Your task to perform on an android device: Do I have any events tomorrow? Image 0: 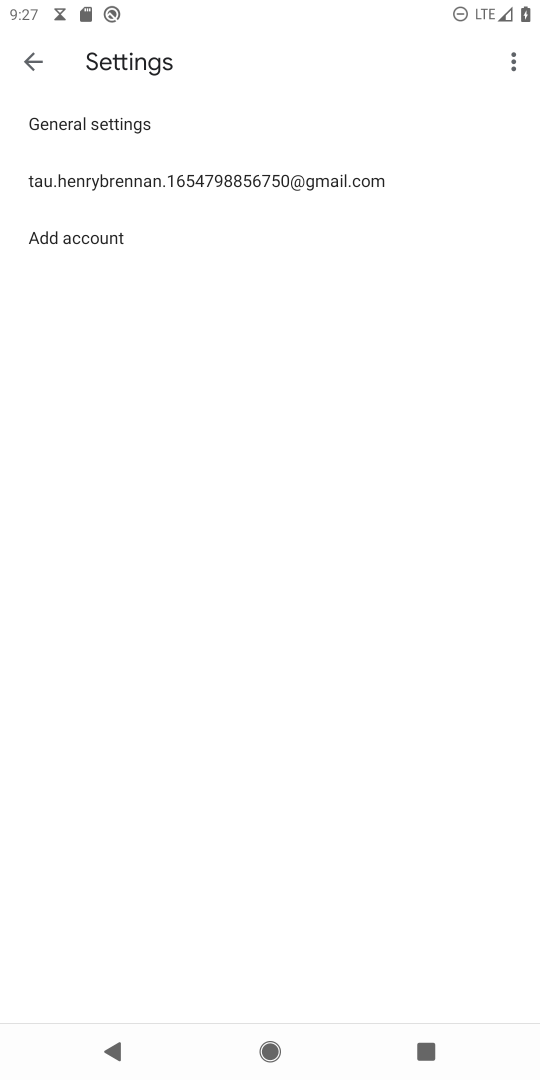
Step 0: press home button
Your task to perform on an android device: Do I have any events tomorrow? Image 1: 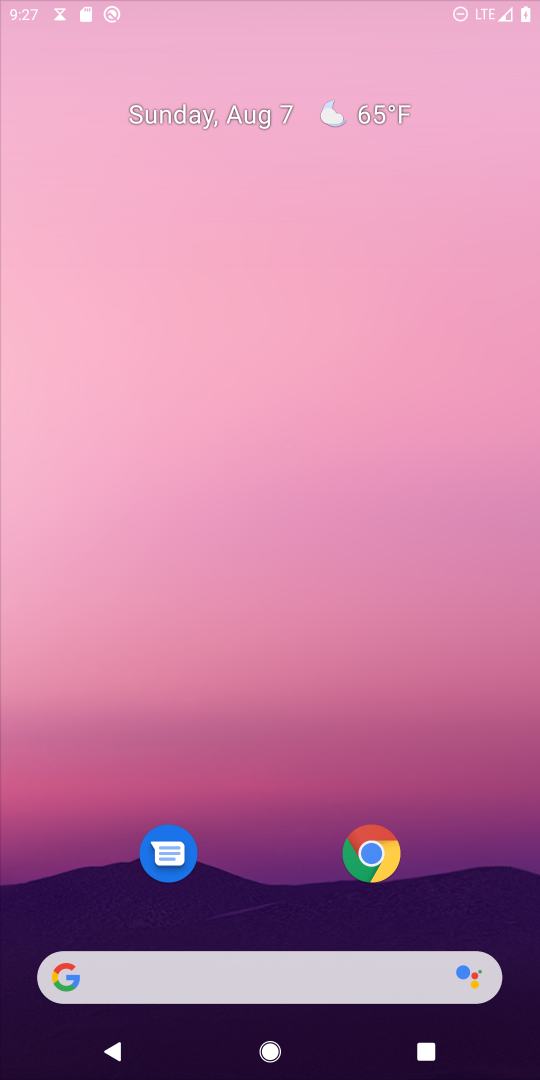
Step 1: drag from (237, 930) to (210, 219)
Your task to perform on an android device: Do I have any events tomorrow? Image 2: 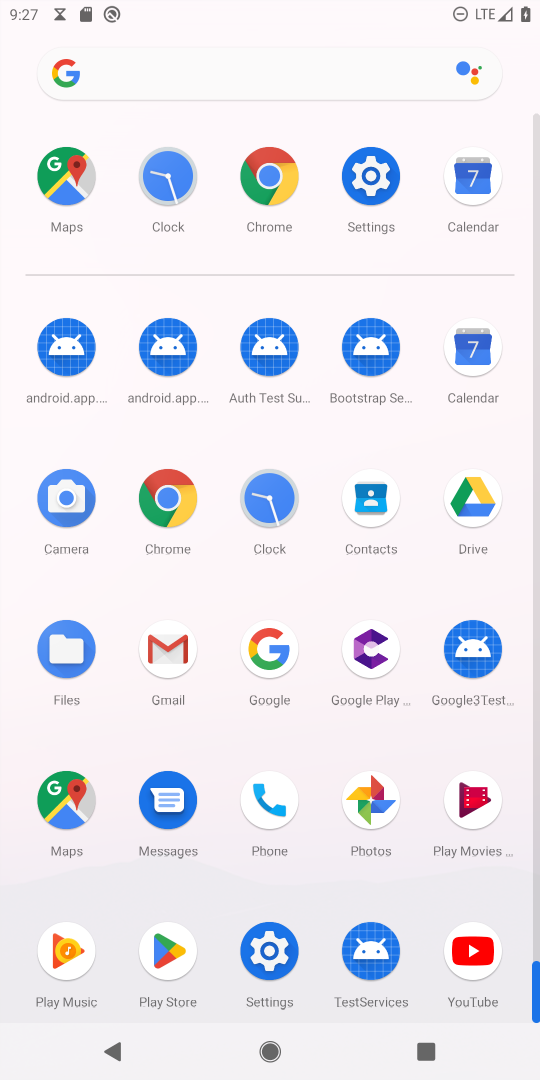
Step 2: click (175, 493)
Your task to perform on an android device: Do I have any events tomorrow? Image 3: 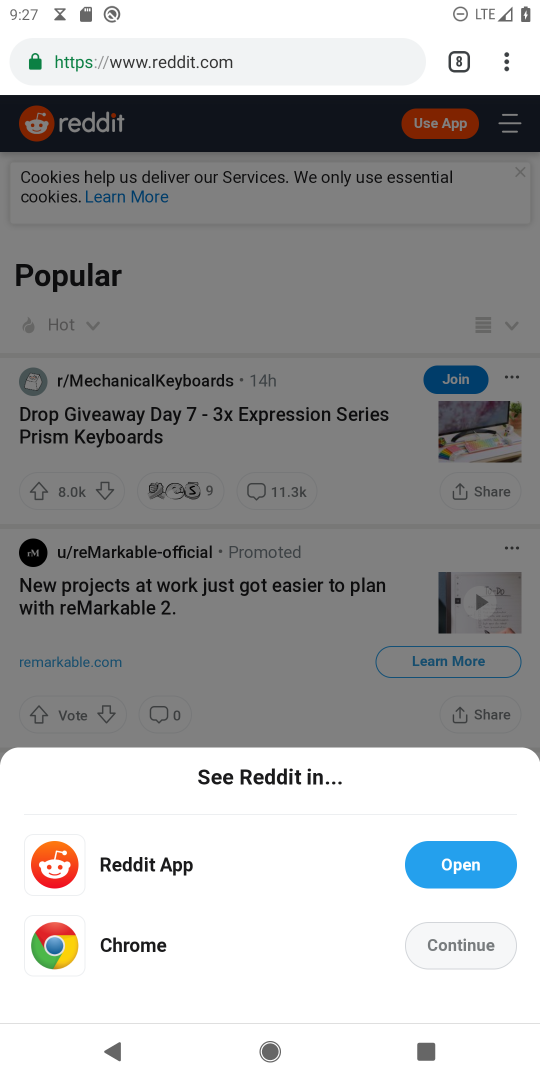
Step 3: click (508, 69)
Your task to perform on an android device: Do I have any events tomorrow? Image 4: 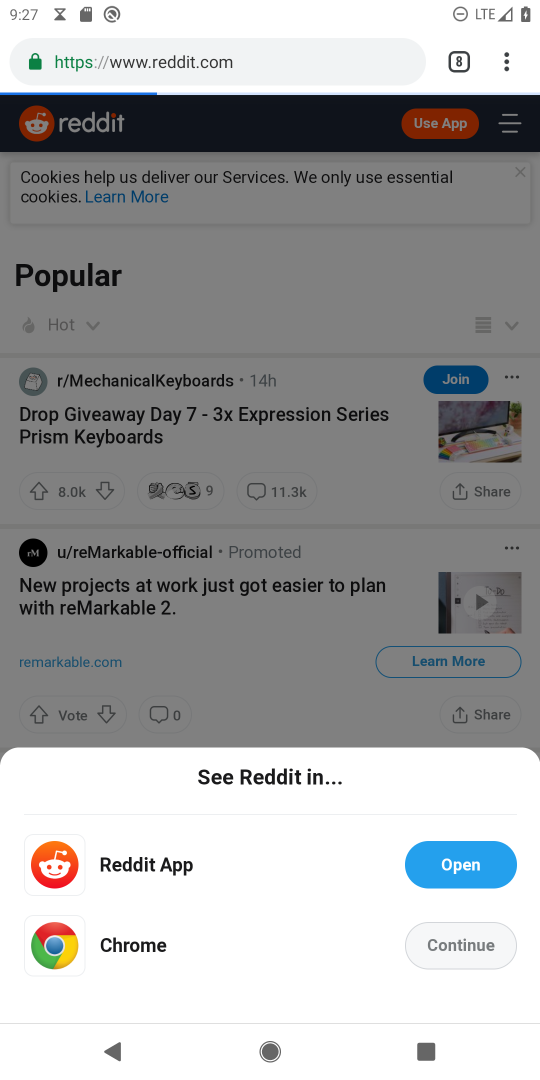
Step 4: click (508, 63)
Your task to perform on an android device: Do I have any events tomorrow? Image 5: 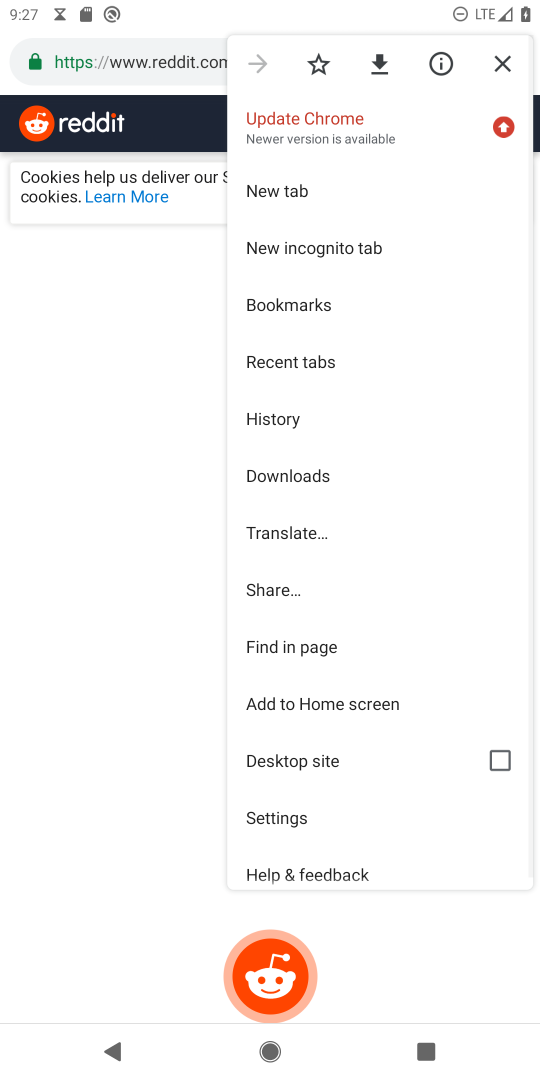
Step 5: click (303, 192)
Your task to perform on an android device: Do I have any events tomorrow? Image 6: 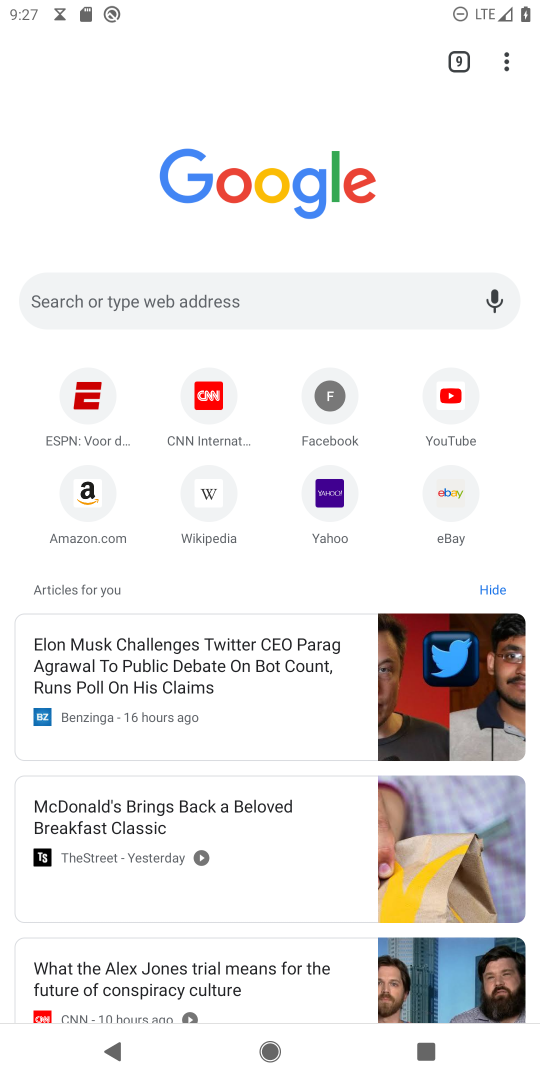
Step 6: click (185, 288)
Your task to perform on an android device: Do I have any events tomorrow? Image 7: 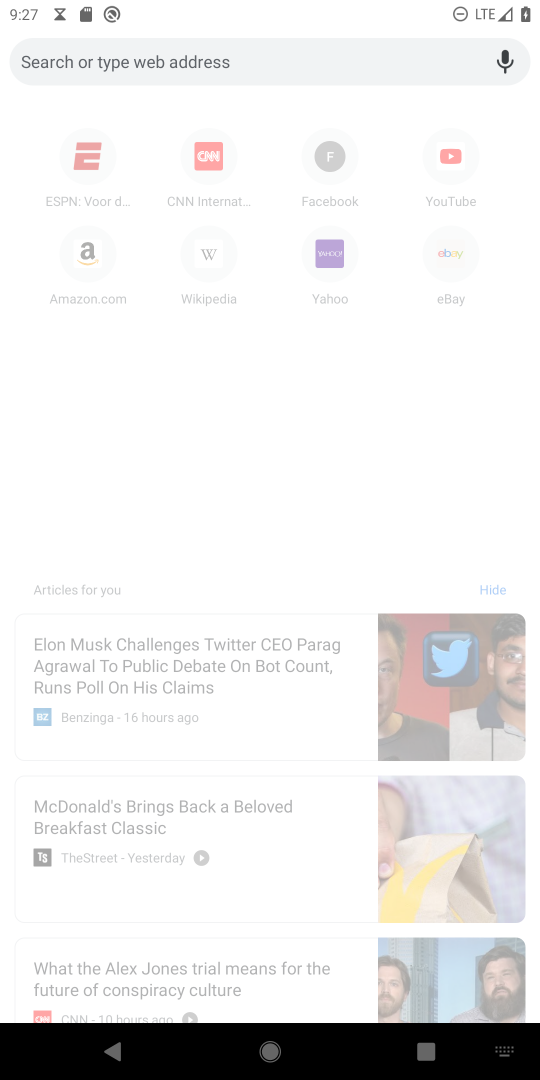
Step 7: type "Do I have any events tomorrow? "
Your task to perform on an android device: Do I have any events tomorrow? Image 8: 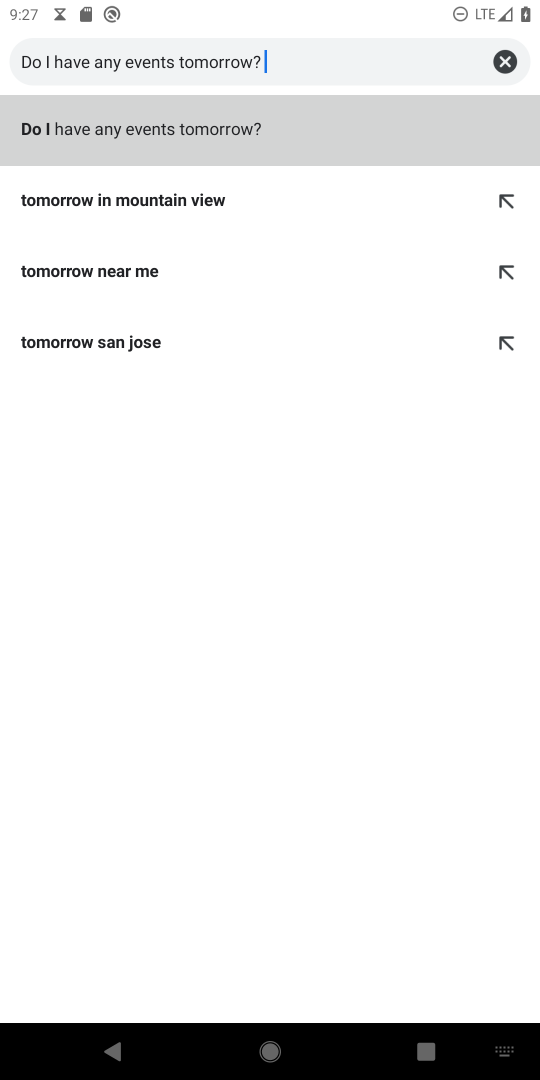
Step 8: click (182, 121)
Your task to perform on an android device: Do I have any events tomorrow? Image 9: 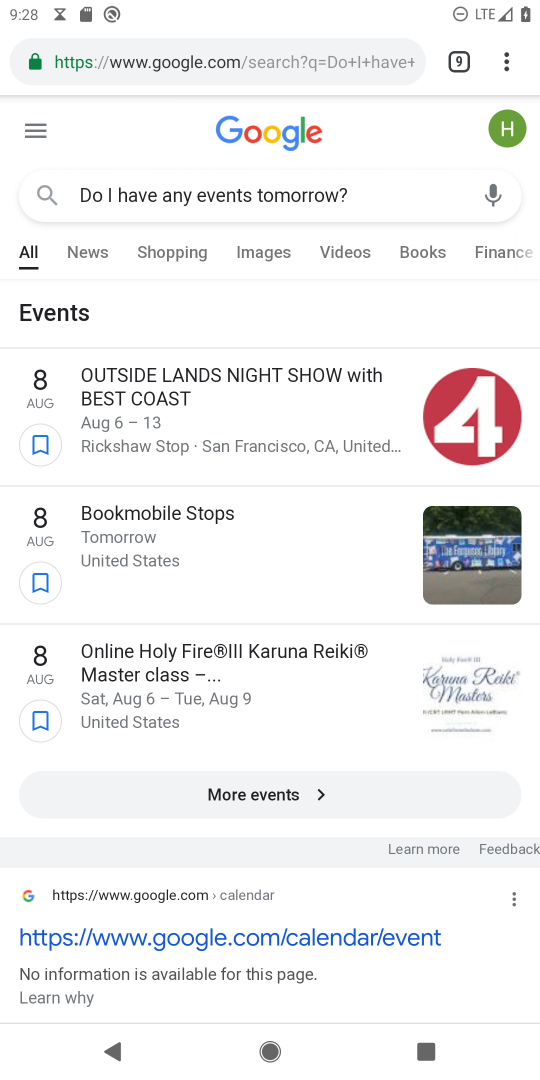
Step 9: task complete